Your task to perform on an android device: Open display settings Image 0: 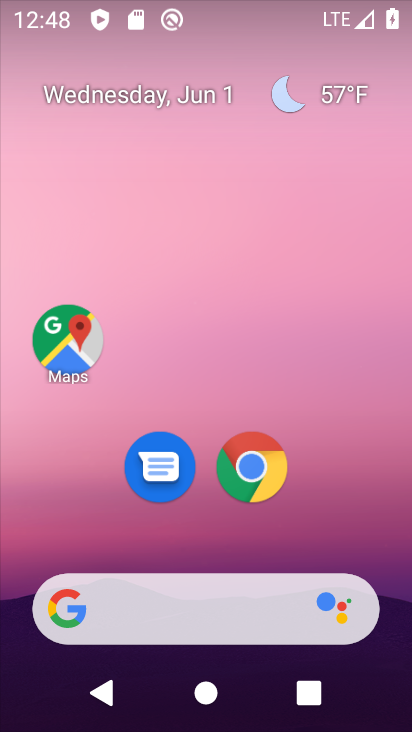
Step 0: drag from (383, 496) to (379, 39)
Your task to perform on an android device: Open display settings Image 1: 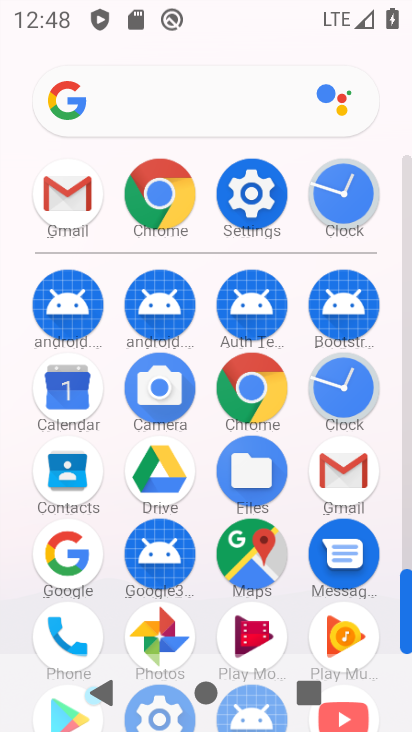
Step 1: click (253, 218)
Your task to perform on an android device: Open display settings Image 2: 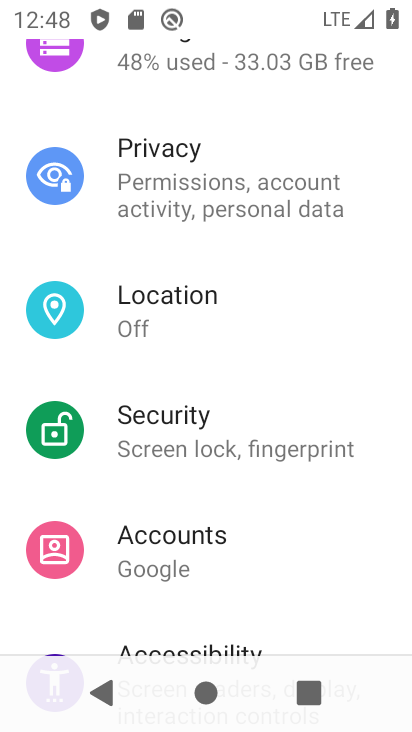
Step 2: drag from (362, 255) to (370, 409)
Your task to perform on an android device: Open display settings Image 3: 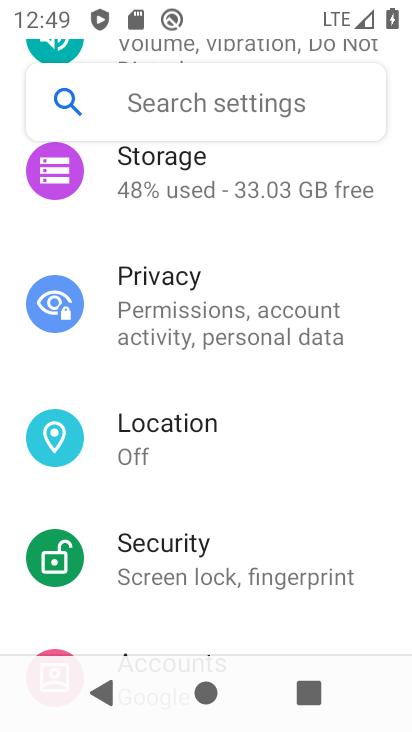
Step 3: drag from (335, 231) to (364, 404)
Your task to perform on an android device: Open display settings Image 4: 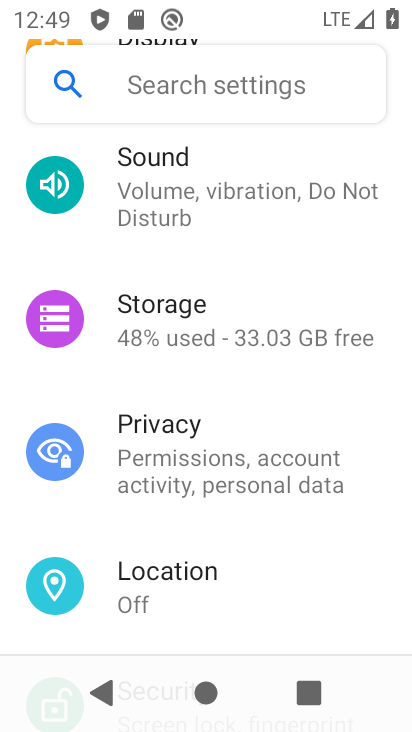
Step 4: drag from (371, 269) to (388, 463)
Your task to perform on an android device: Open display settings Image 5: 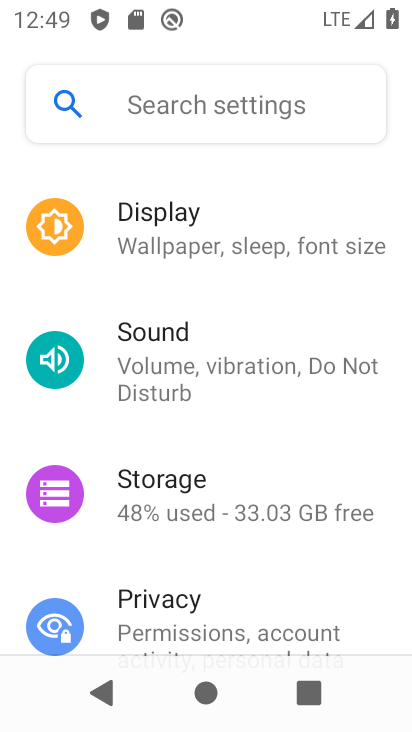
Step 5: drag from (373, 284) to (374, 438)
Your task to perform on an android device: Open display settings Image 6: 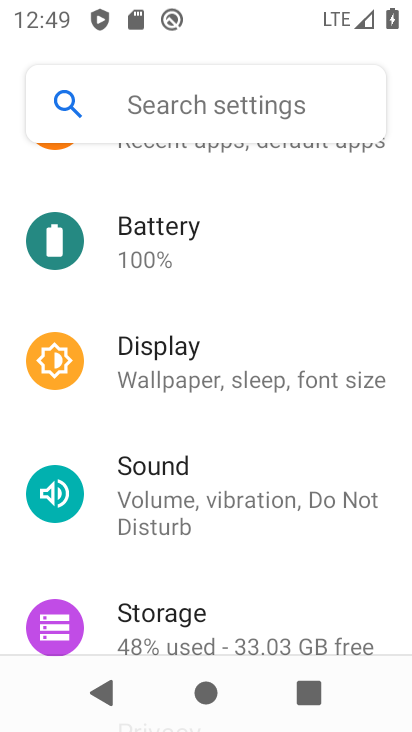
Step 6: drag from (357, 288) to (358, 450)
Your task to perform on an android device: Open display settings Image 7: 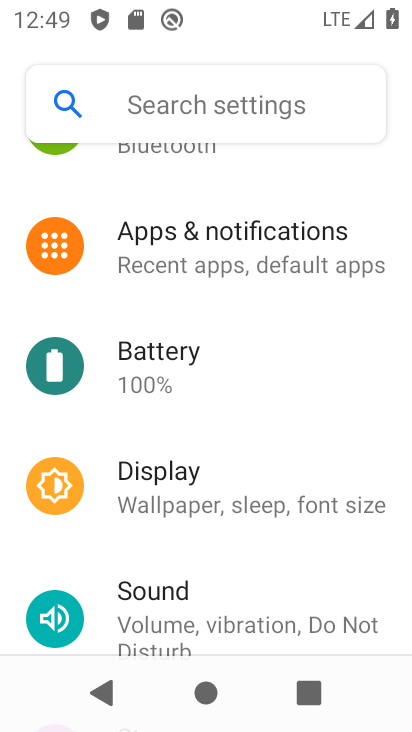
Step 7: click (253, 496)
Your task to perform on an android device: Open display settings Image 8: 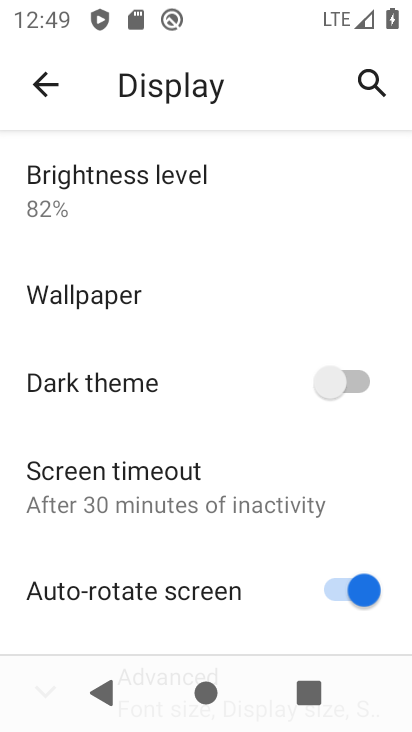
Step 8: task complete